Your task to perform on an android device: turn on sleep mode Image 0: 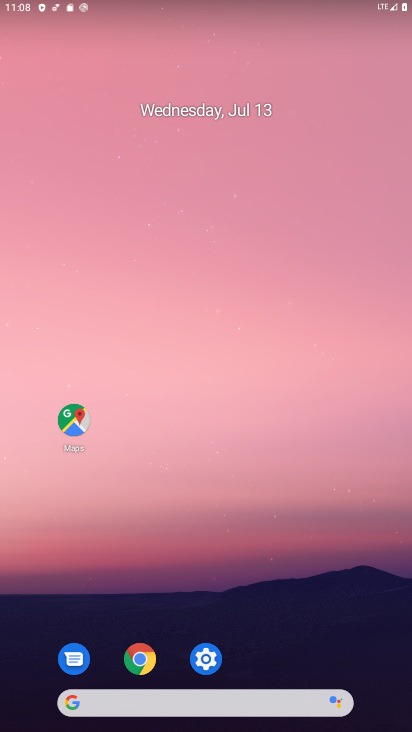
Step 0: drag from (259, 535) to (180, 99)
Your task to perform on an android device: turn on sleep mode Image 1: 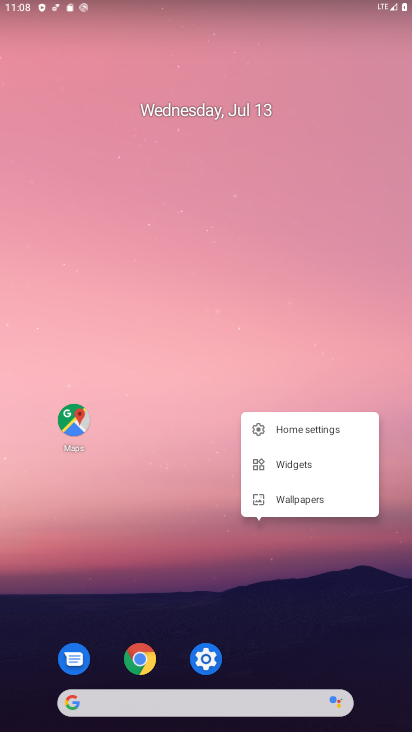
Step 1: drag from (258, 603) to (119, 11)
Your task to perform on an android device: turn on sleep mode Image 2: 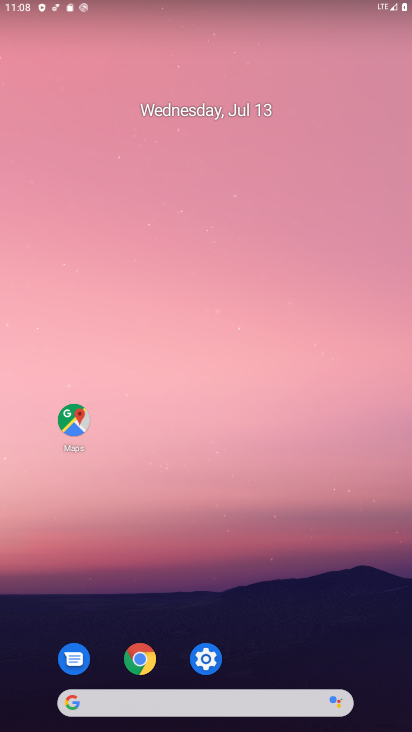
Step 2: click (209, 9)
Your task to perform on an android device: turn on sleep mode Image 3: 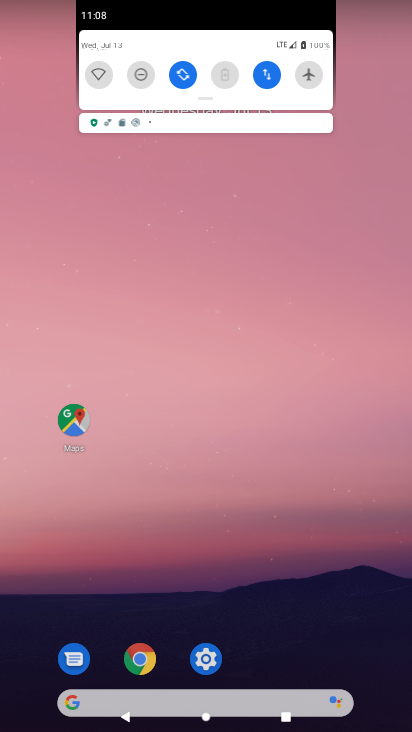
Step 3: click (180, 80)
Your task to perform on an android device: turn on sleep mode Image 4: 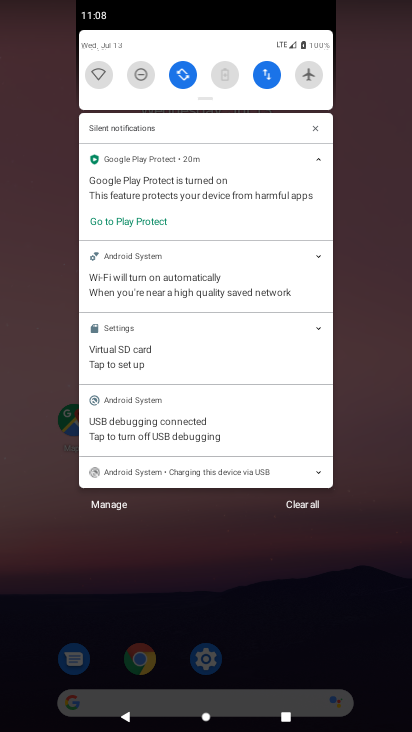
Step 4: click (263, 543)
Your task to perform on an android device: turn on sleep mode Image 5: 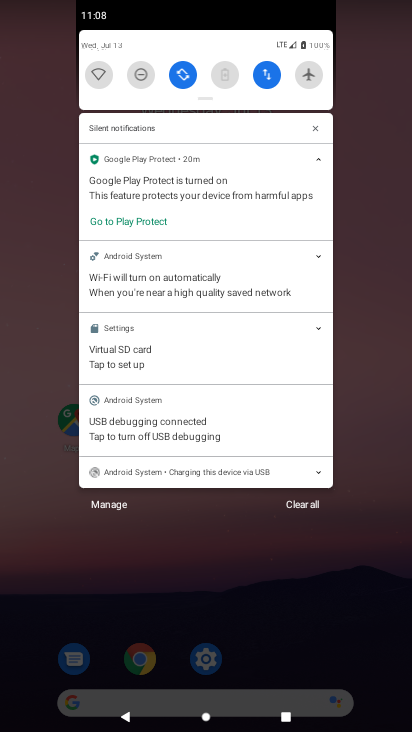
Step 5: click (269, 538)
Your task to perform on an android device: turn on sleep mode Image 6: 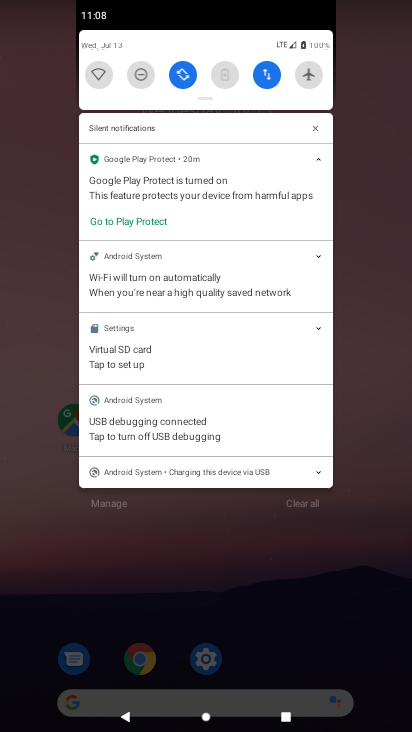
Step 6: click (255, 551)
Your task to perform on an android device: turn on sleep mode Image 7: 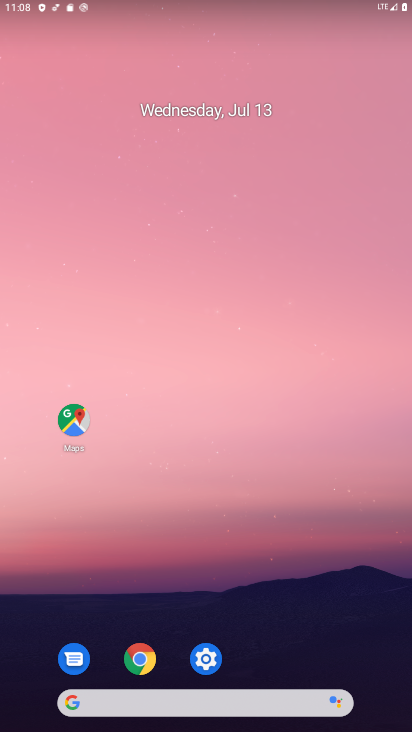
Step 7: drag from (186, 535) to (243, 180)
Your task to perform on an android device: turn on sleep mode Image 8: 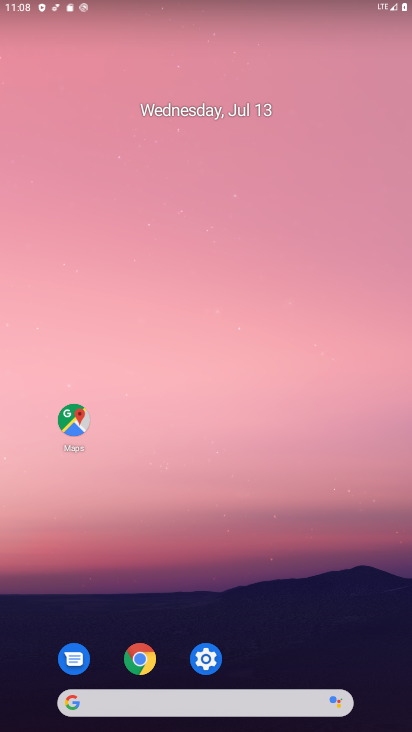
Step 8: drag from (200, 618) to (168, 133)
Your task to perform on an android device: turn on sleep mode Image 9: 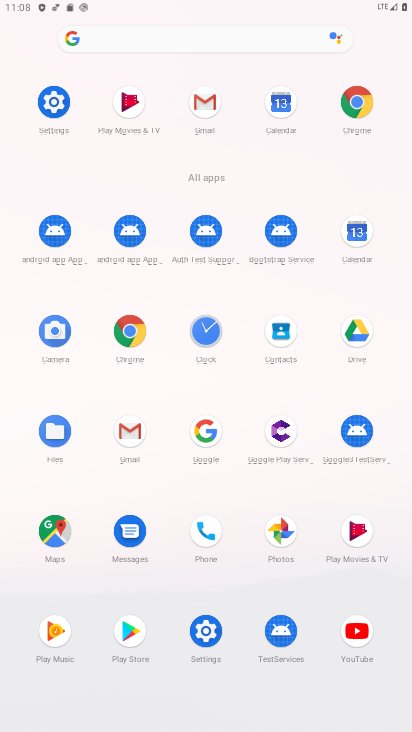
Step 9: click (207, 636)
Your task to perform on an android device: turn on sleep mode Image 10: 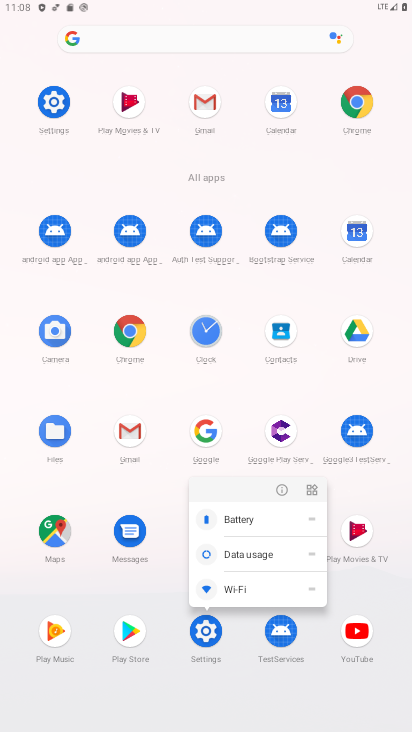
Step 10: click (213, 636)
Your task to perform on an android device: turn on sleep mode Image 11: 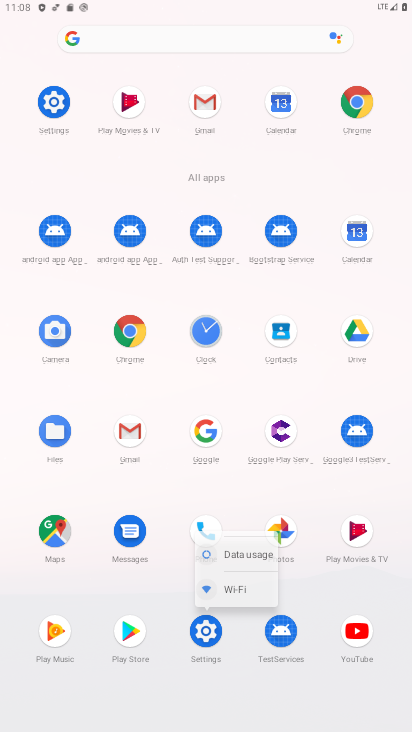
Step 11: click (213, 636)
Your task to perform on an android device: turn on sleep mode Image 12: 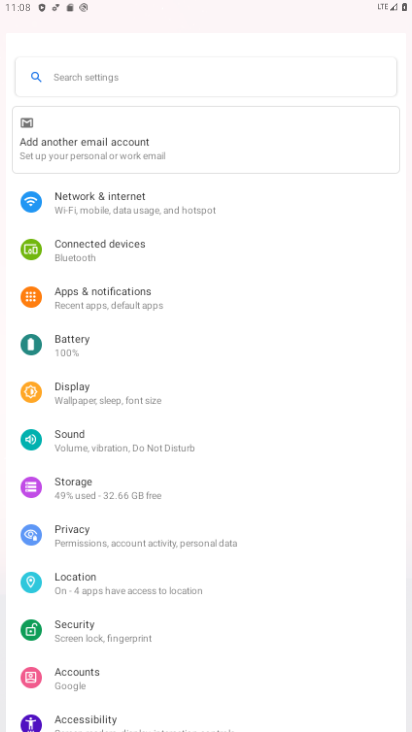
Step 12: click (212, 637)
Your task to perform on an android device: turn on sleep mode Image 13: 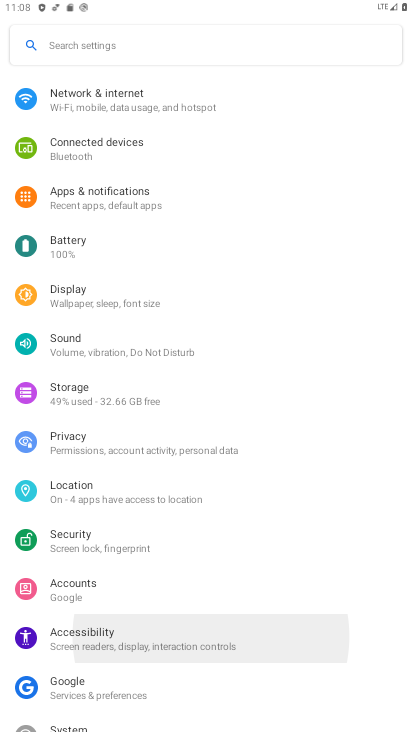
Step 13: click (212, 637)
Your task to perform on an android device: turn on sleep mode Image 14: 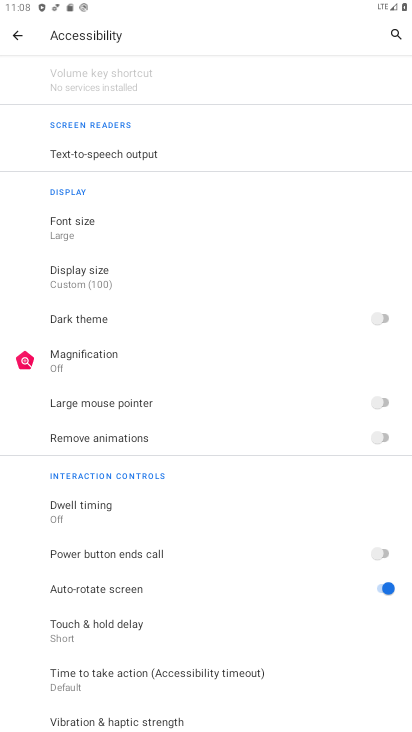
Step 14: click (21, 31)
Your task to perform on an android device: turn on sleep mode Image 15: 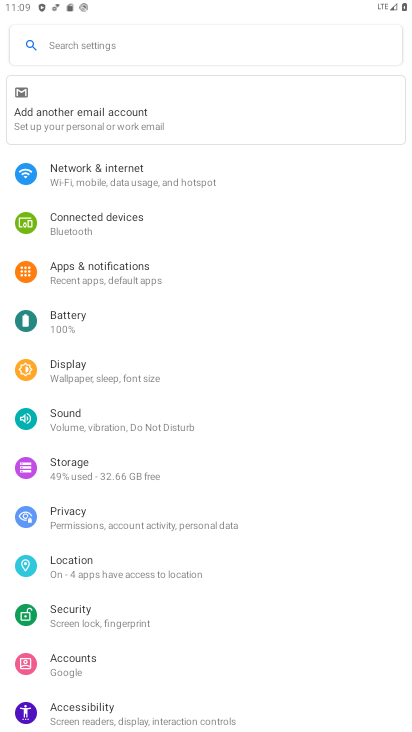
Step 15: click (86, 371)
Your task to perform on an android device: turn on sleep mode Image 16: 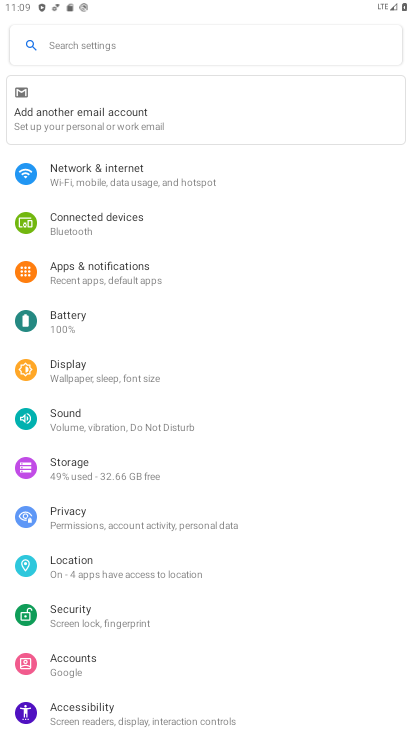
Step 16: click (96, 370)
Your task to perform on an android device: turn on sleep mode Image 17: 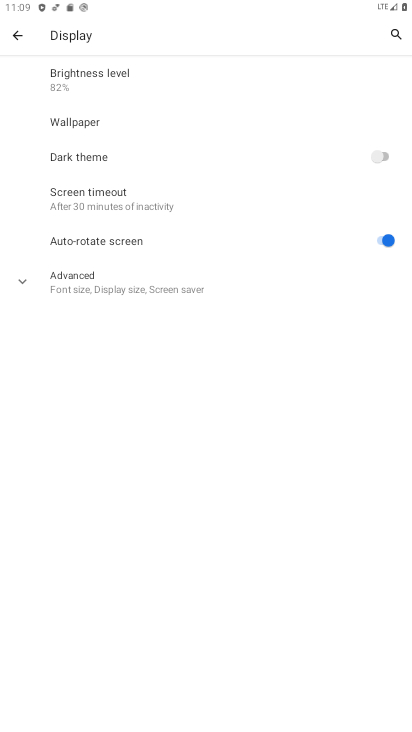
Step 17: click (76, 196)
Your task to perform on an android device: turn on sleep mode Image 18: 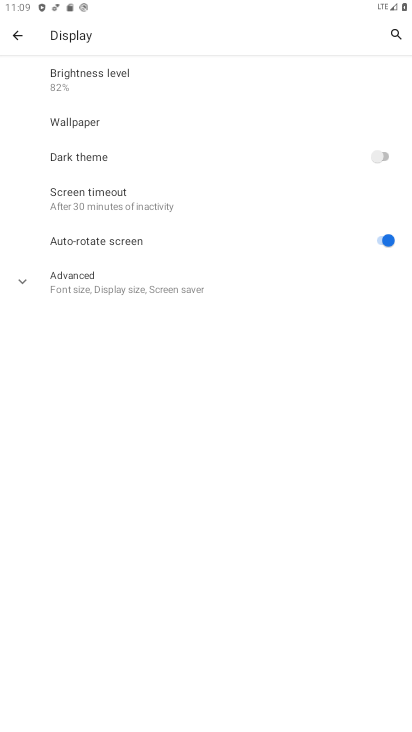
Step 18: click (76, 196)
Your task to perform on an android device: turn on sleep mode Image 19: 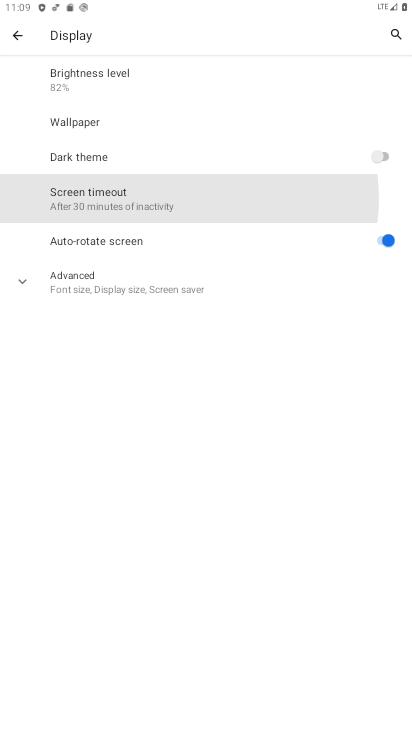
Step 19: click (76, 196)
Your task to perform on an android device: turn on sleep mode Image 20: 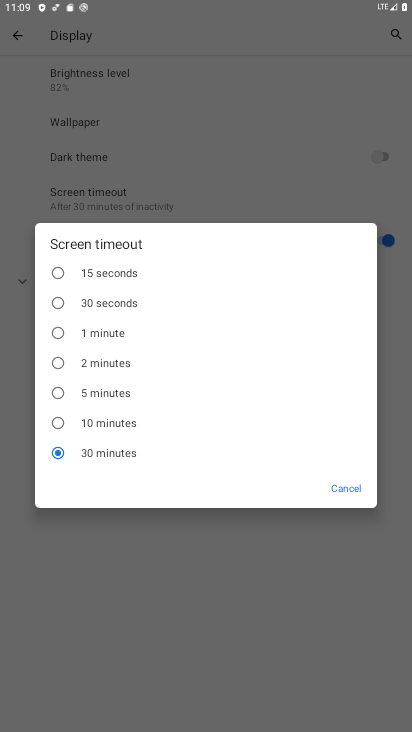
Step 20: click (51, 362)
Your task to perform on an android device: turn on sleep mode Image 21: 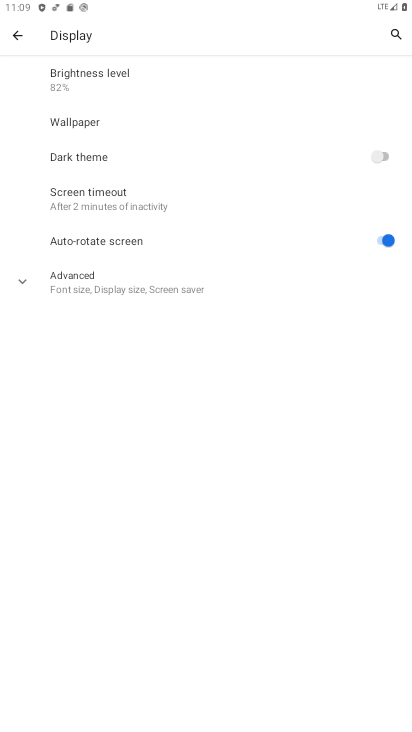
Step 21: task complete